Your task to perform on an android device: check storage Image 0: 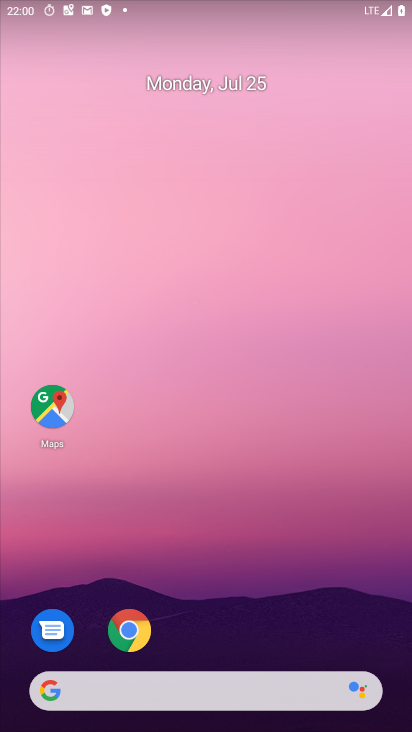
Step 0: press home button
Your task to perform on an android device: check storage Image 1: 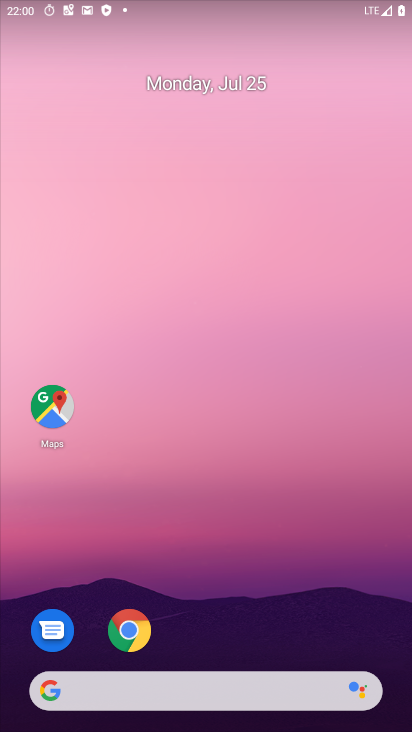
Step 1: drag from (245, 626) to (294, 117)
Your task to perform on an android device: check storage Image 2: 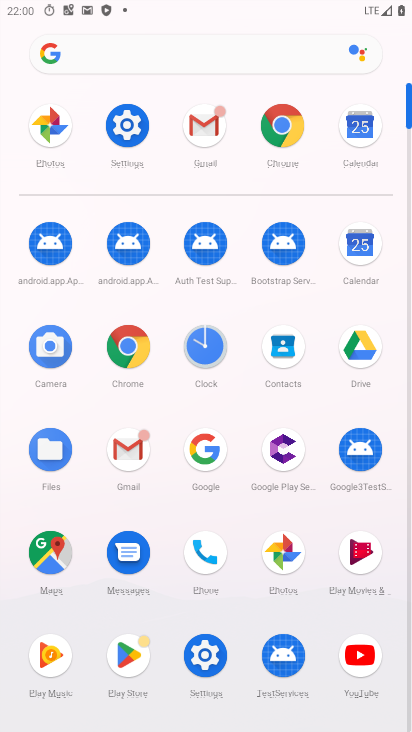
Step 2: click (116, 134)
Your task to perform on an android device: check storage Image 3: 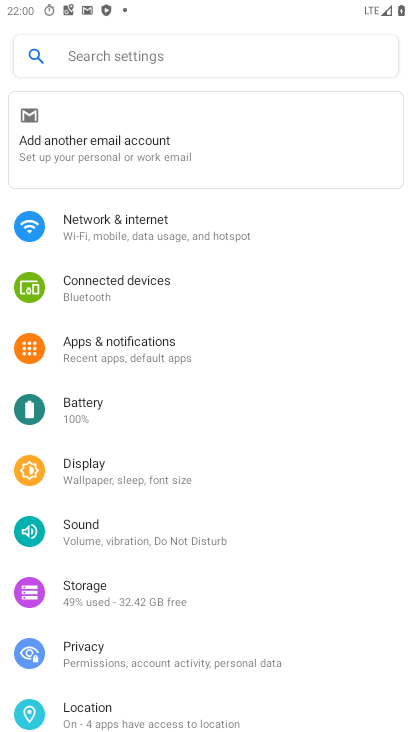
Step 3: click (88, 588)
Your task to perform on an android device: check storage Image 4: 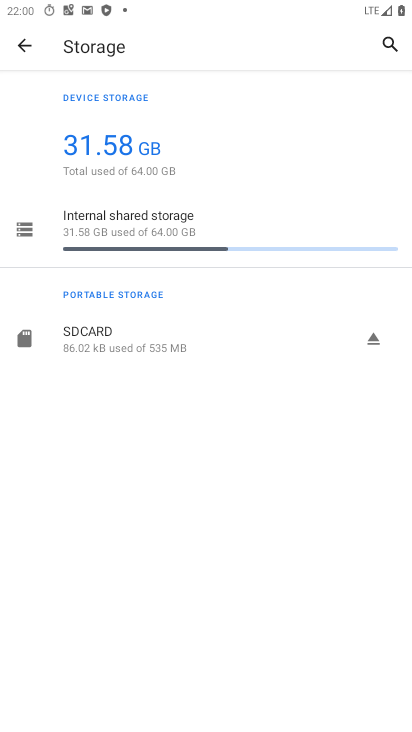
Step 4: task complete